Your task to perform on an android device: turn off javascript in the chrome app Image 0: 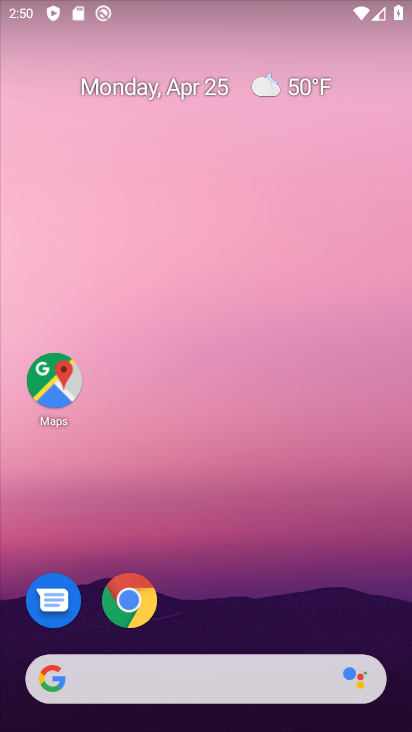
Step 0: drag from (358, 601) to (357, 146)
Your task to perform on an android device: turn off javascript in the chrome app Image 1: 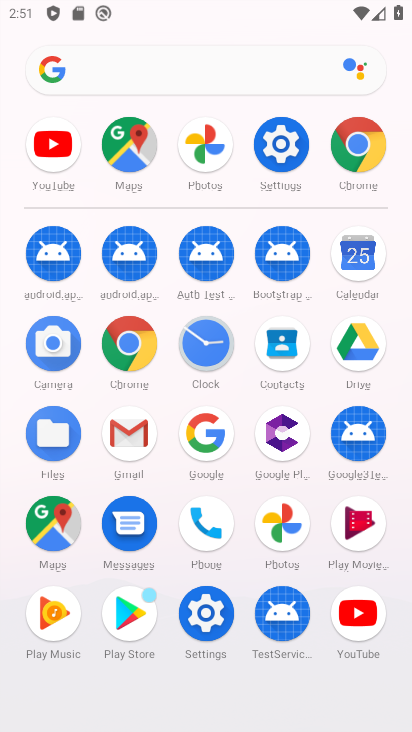
Step 1: click (372, 152)
Your task to perform on an android device: turn off javascript in the chrome app Image 2: 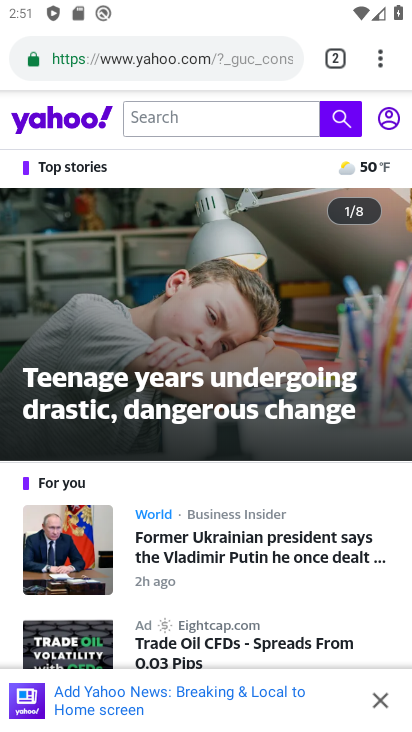
Step 2: press home button
Your task to perform on an android device: turn off javascript in the chrome app Image 3: 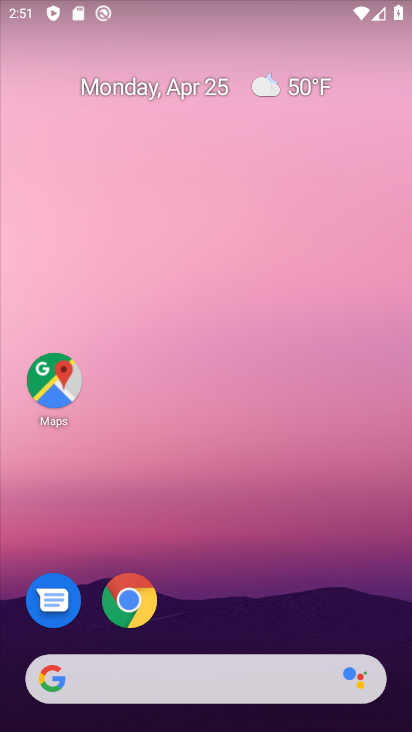
Step 3: click (127, 611)
Your task to perform on an android device: turn off javascript in the chrome app Image 4: 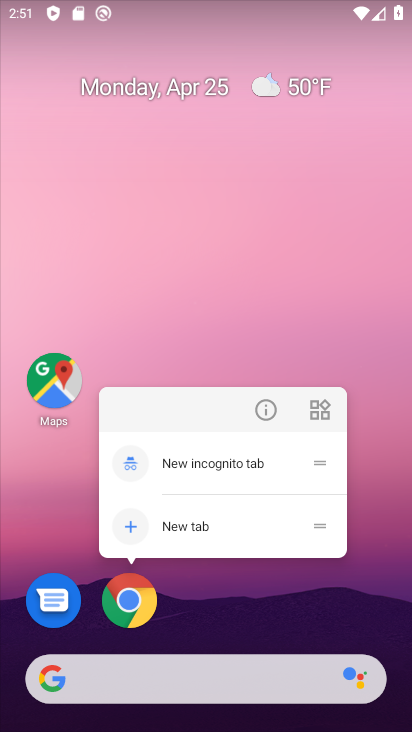
Step 4: drag from (320, 625) to (358, 209)
Your task to perform on an android device: turn off javascript in the chrome app Image 5: 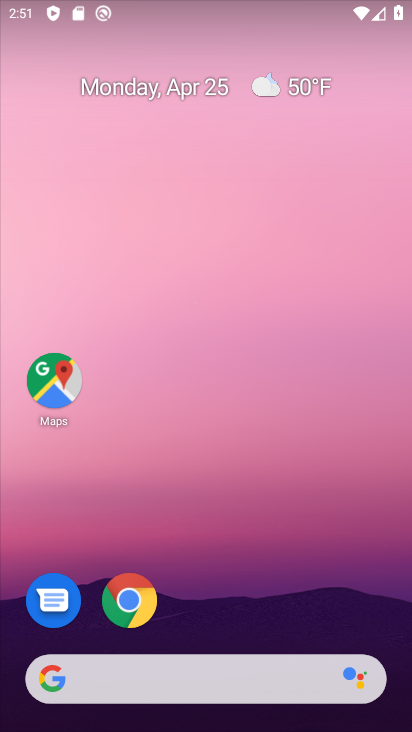
Step 5: drag from (334, 485) to (341, 38)
Your task to perform on an android device: turn off javascript in the chrome app Image 6: 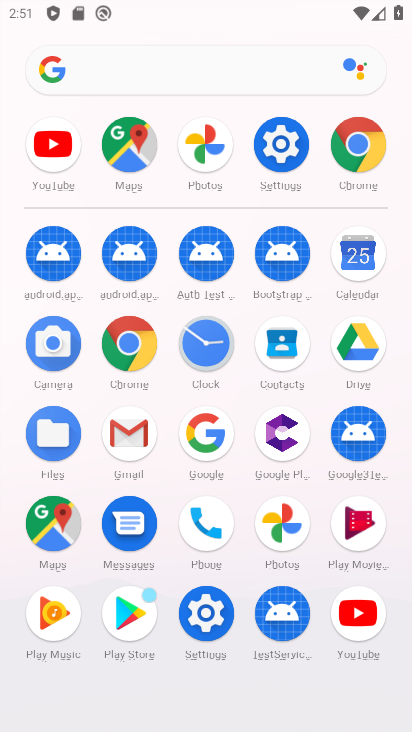
Step 6: click (369, 151)
Your task to perform on an android device: turn off javascript in the chrome app Image 7: 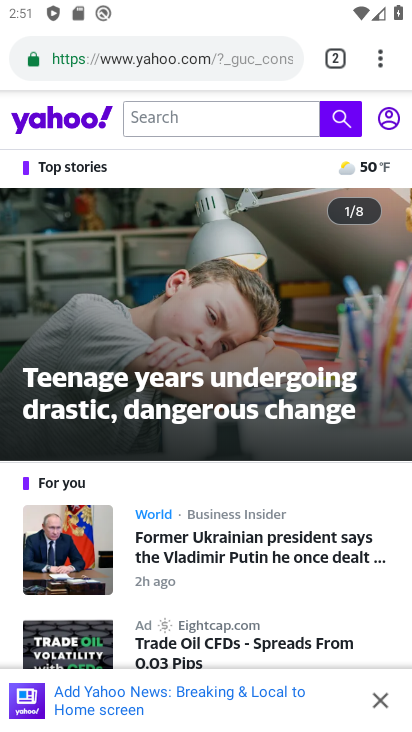
Step 7: drag from (379, 60) to (207, 629)
Your task to perform on an android device: turn off javascript in the chrome app Image 8: 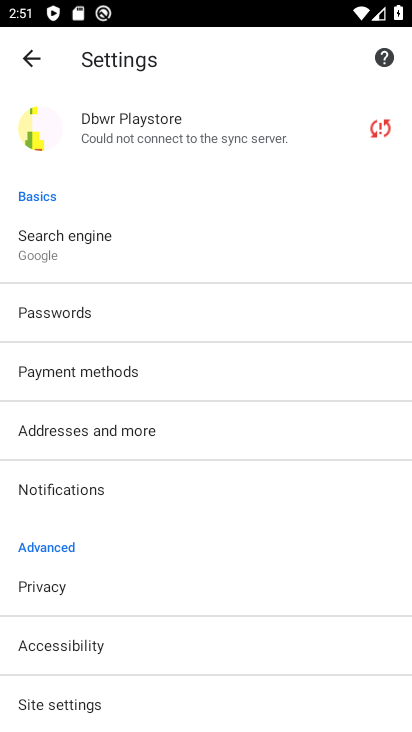
Step 8: drag from (236, 646) to (276, 365)
Your task to perform on an android device: turn off javascript in the chrome app Image 9: 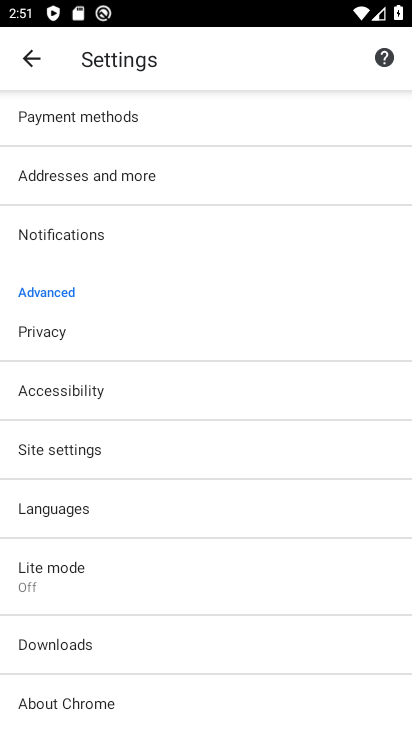
Step 9: drag from (250, 666) to (235, 354)
Your task to perform on an android device: turn off javascript in the chrome app Image 10: 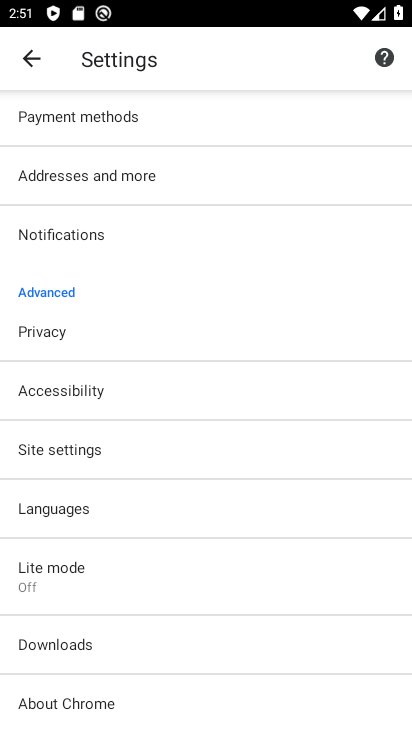
Step 10: click (84, 447)
Your task to perform on an android device: turn off javascript in the chrome app Image 11: 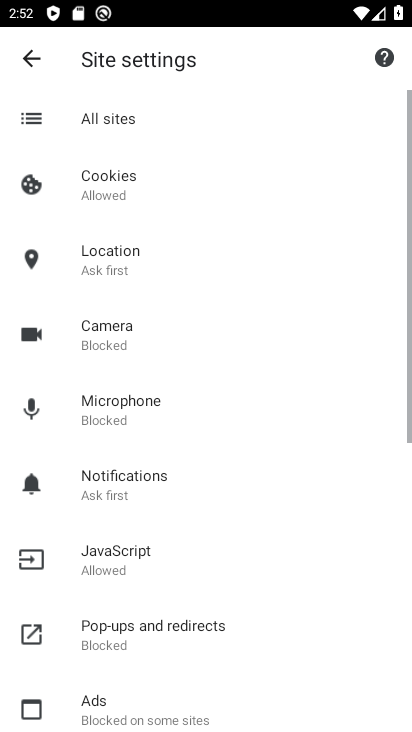
Step 11: drag from (274, 654) to (272, 344)
Your task to perform on an android device: turn off javascript in the chrome app Image 12: 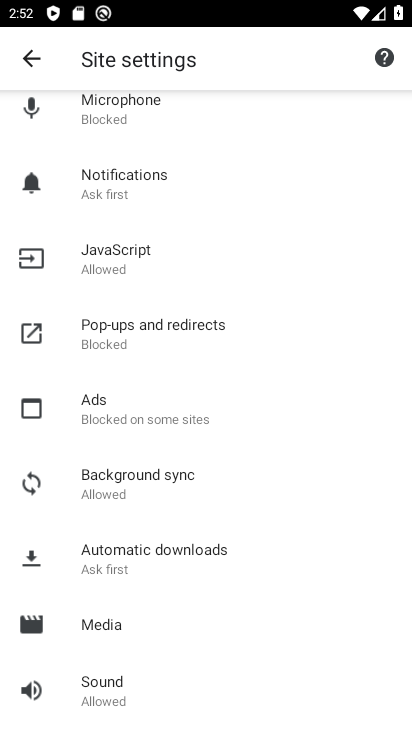
Step 12: click (149, 252)
Your task to perform on an android device: turn off javascript in the chrome app Image 13: 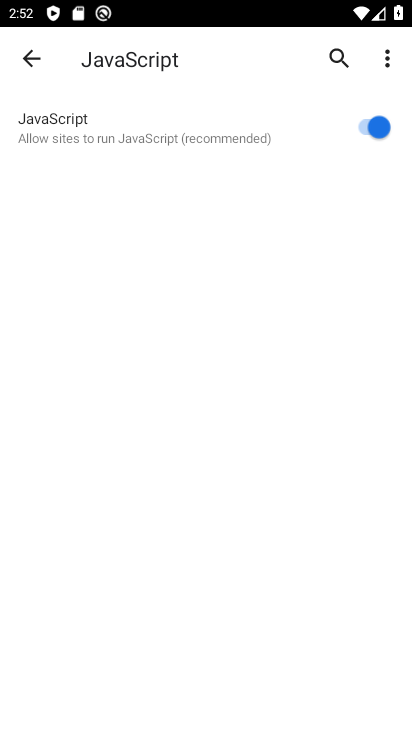
Step 13: click (364, 122)
Your task to perform on an android device: turn off javascript in the chrome app Image 14: 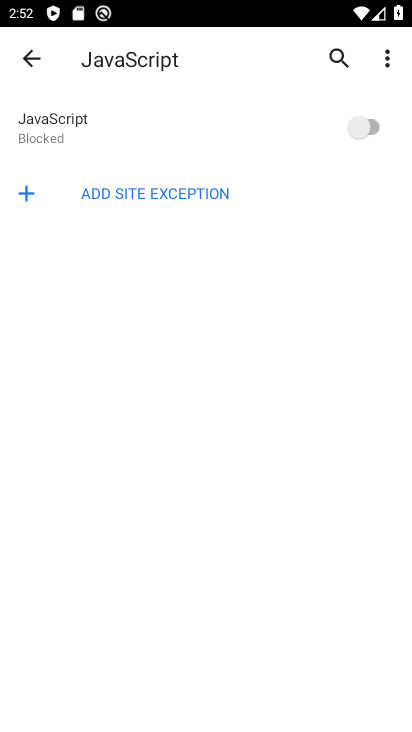
Step 14: task complete